Your task to perform on an android device: Open Yahoo.com Image 0: 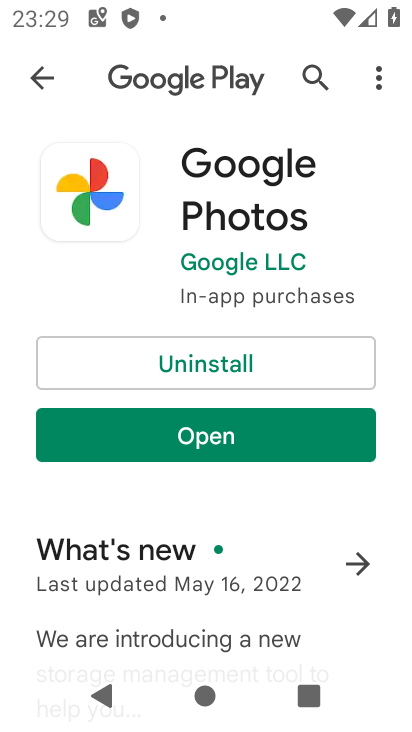
Step 0: press home button
Your task to perform on an android device: Open Yahoo.com Image 1: 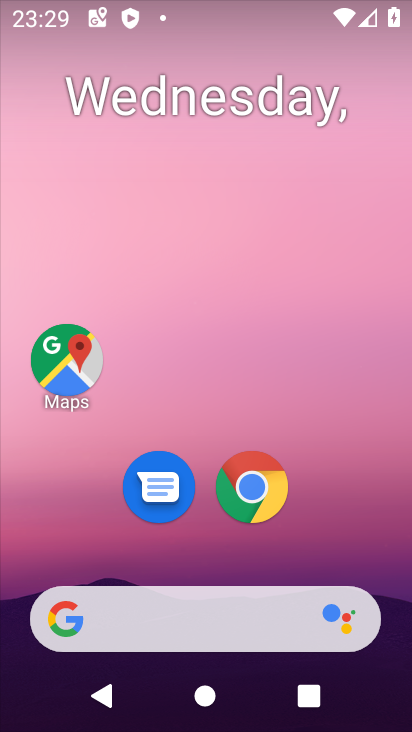
Step 1: click (254, 499)
Your task to perform on an android device: Open Yahoo.com Image 2: 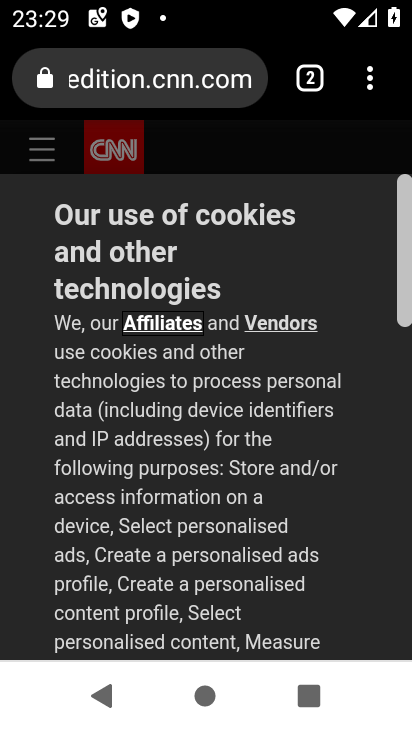
Step 2: click (138, 88)
Your task to perform on an android device: Open Yahoo.com Image 3: 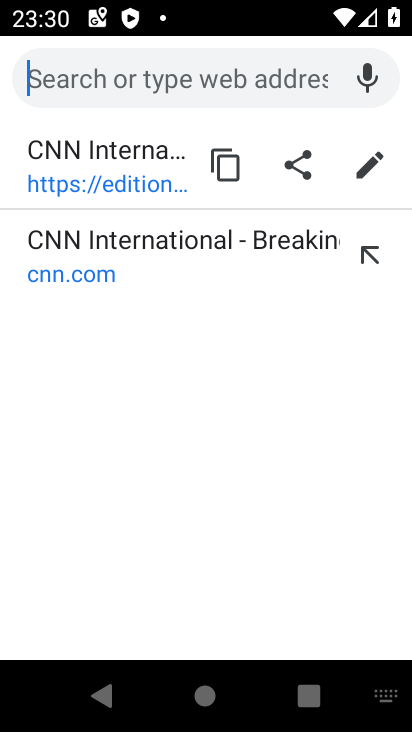
Step 3: type "yahoo.com"
Your task to perform on an android device: Open Yahoo.com Image 4: 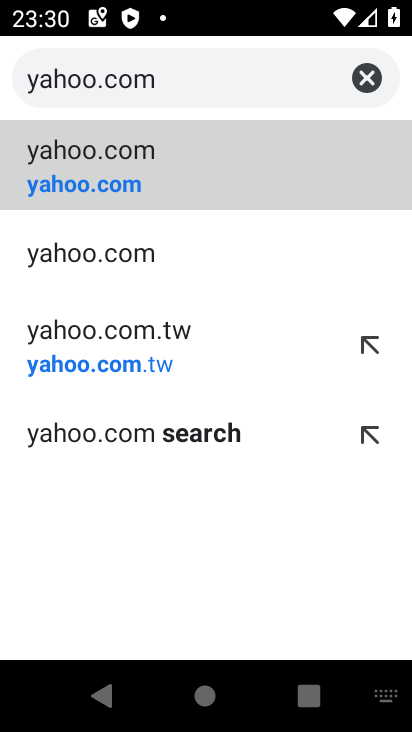
Step 4: click (134, 192)
Your task to perform on an android device: Open Yahoo.com Image 5: 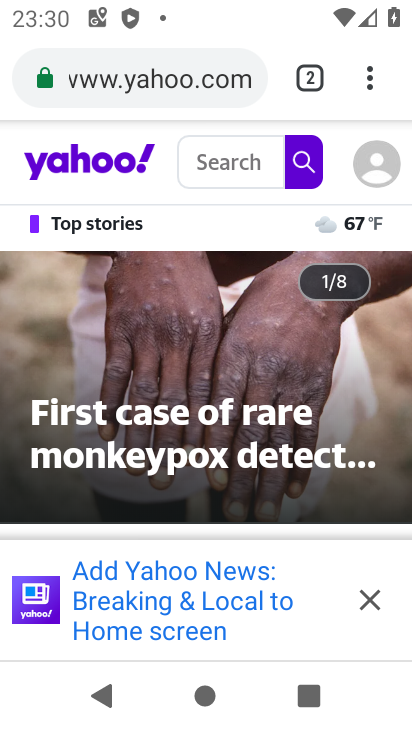
Step 5: task complete